Your task to perform on an android device: set an alarm Image 0: 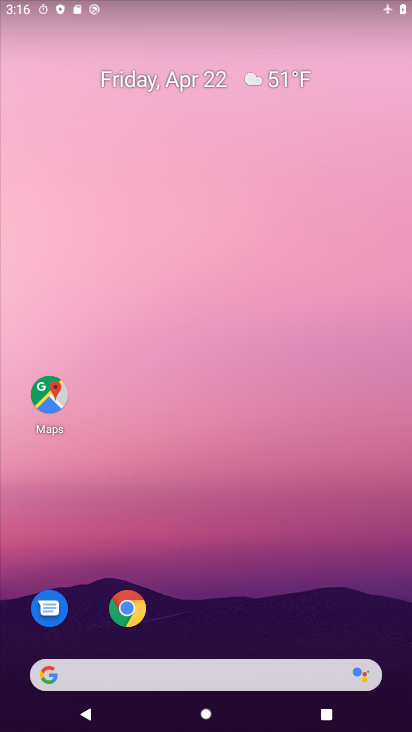
Step 0: drag from (282, 448) to (314, 29)
Your task to perform on an android device: set an alarm Image 1: 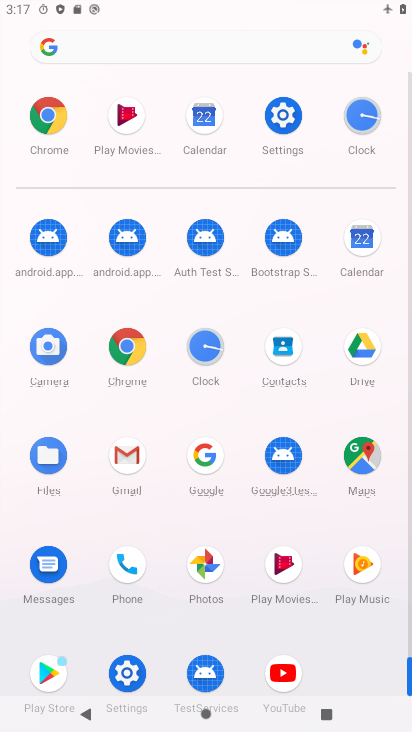
Step 1: click (366, 119)
Your task to perform on an android device: set an alarm Image 2: 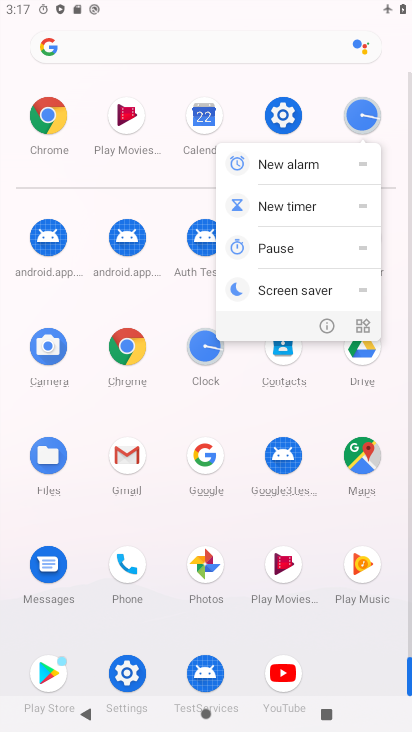
Step 2: click (366, 117)
Your task to perform on an android device: set an alarm Image 3: 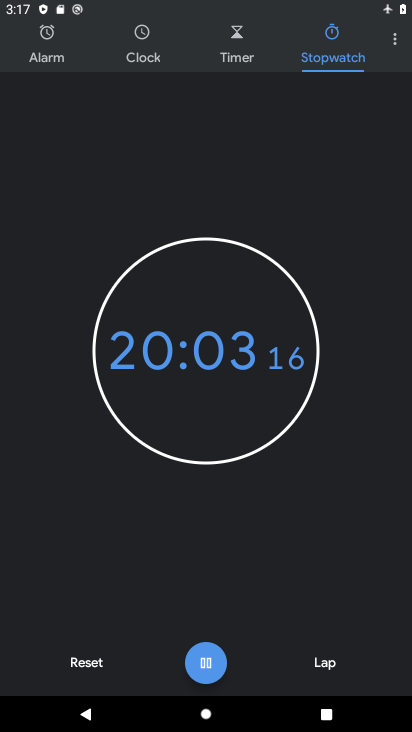
Step 3: click (39, 47)
Your task to perform on an android device: set an alarm Image 4: 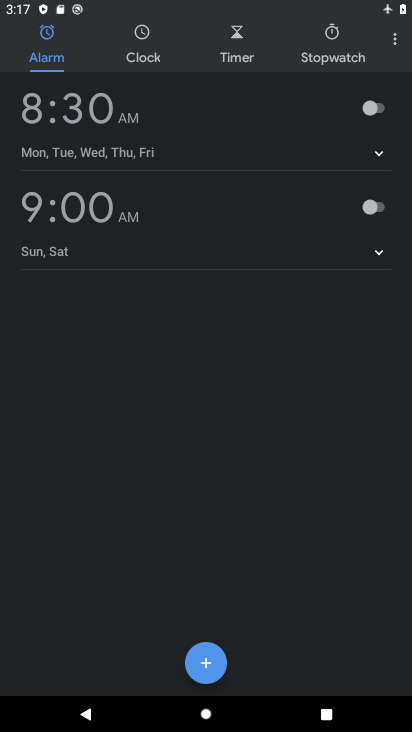
Step 4: click (379, 118)
Your task to perform on an android device: set an alarm Image 5: 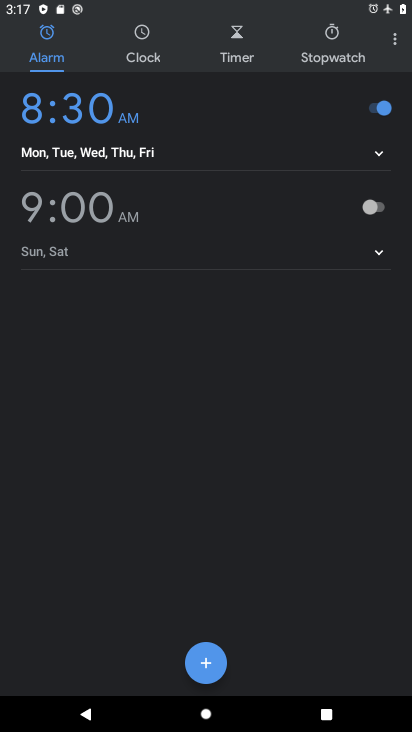
Step 5: task complete